Your task to perform on an android device: Open internet settings Image 0: 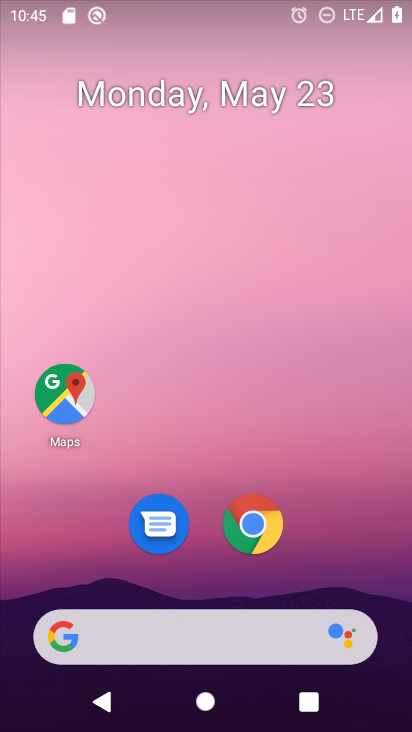
Step 0: drag from (214, 458) to (285, 21)
Your task to perform on an android device: Open internet settings Image 1: 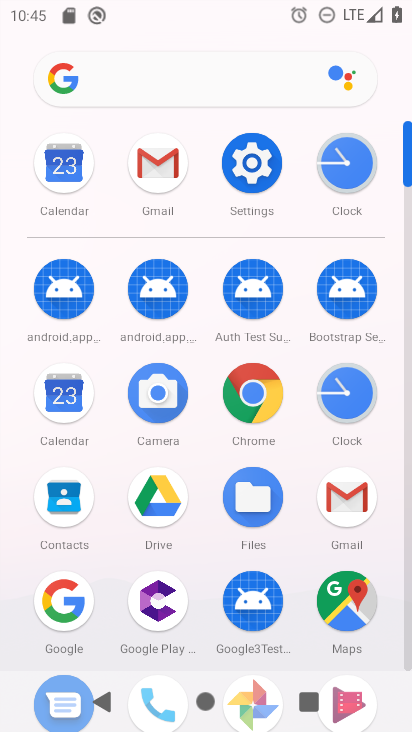
Step 1: click (246, 163)
Your task to perform on an android device: Open internet settings Image 2: 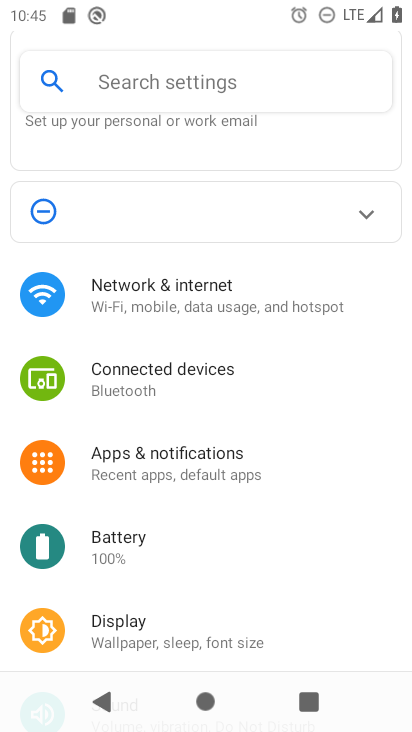
Step 2: click (198, 297)
Your task to perform on an android device: Open internet settings Image 3: 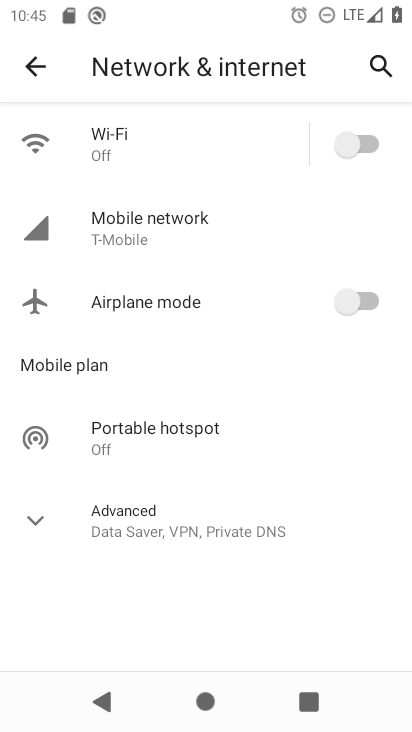
Step 3: task complete